Your task to perform on an android device: change keyboard looks Image 0: 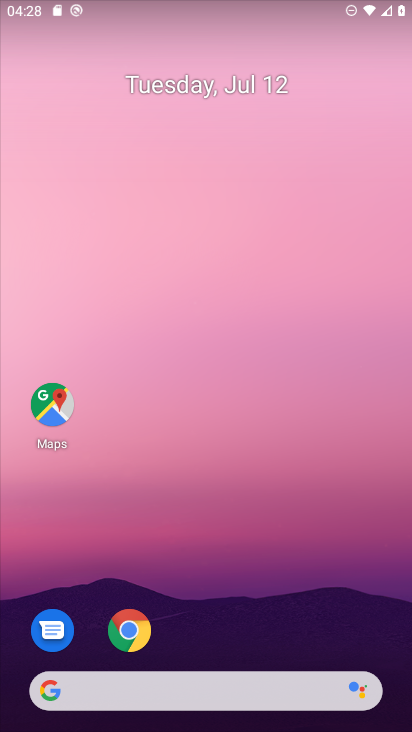
Step 0: drag from (389, 630) to (308, 94)
Your task to perform on an android device: change keyboard looks Image 1: 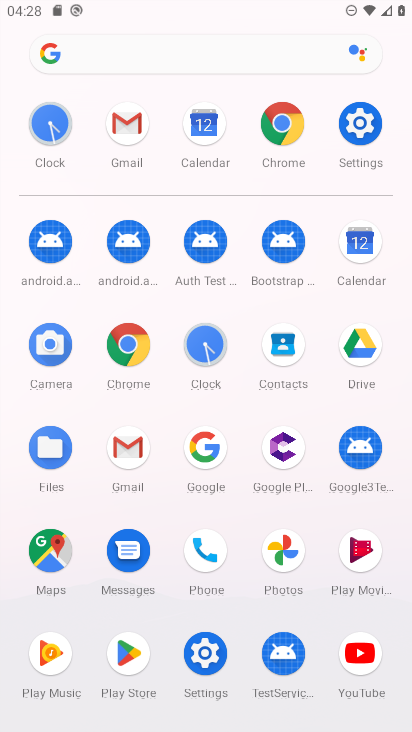
Step 1: click (203, 650)
Your task to perform on an android device: change keyboard looks Image 2: 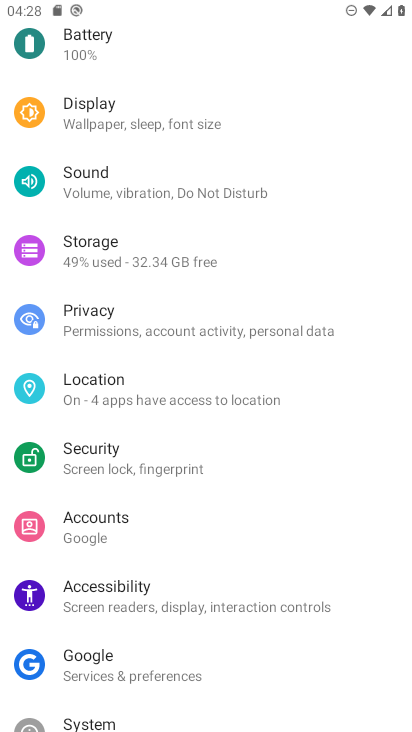
Step 2: drag from (355, 605) to (336, 263)
Your task to perform on an android device: change keyboard looks Image 3: 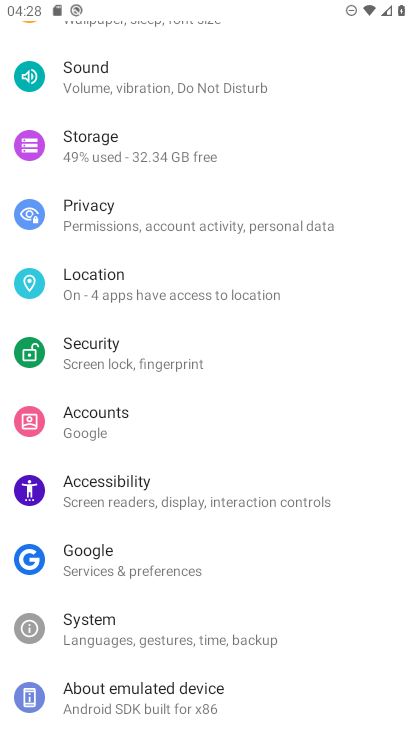
Step 3: click (78, 618)
Your task to perform on an android device: change keyboard looks Image 4: 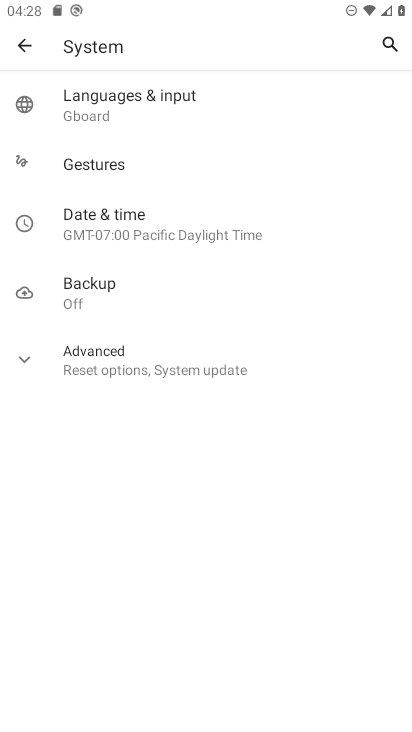
Step 4: click (126, 110)
Your task to perform on an android device: change keyboard looks Image 5: 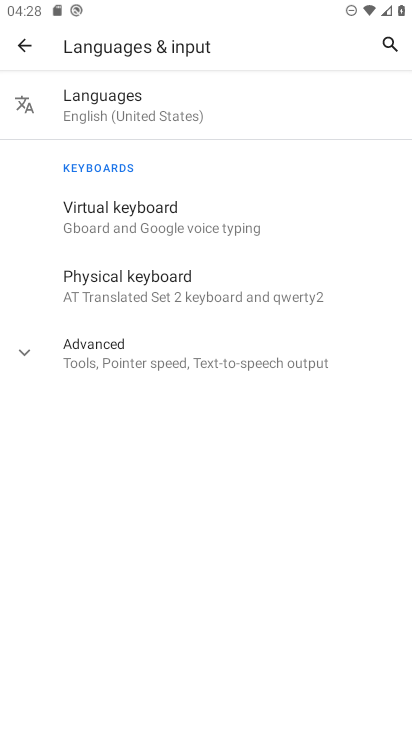
Step 5: click (114, 280)
Your task to perform on an android device: change keyboard looks Image 6: 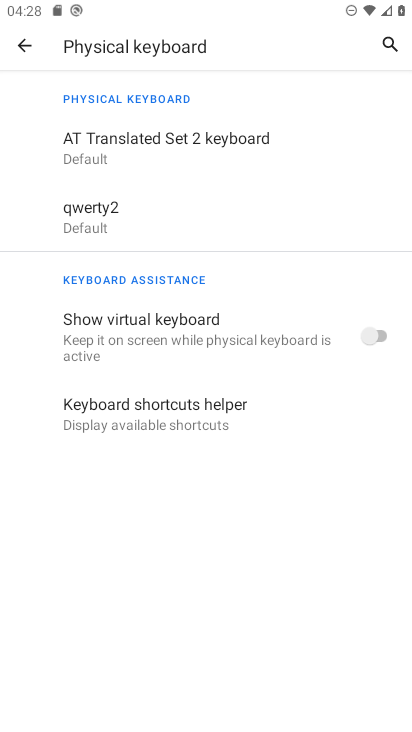
Step 6: click (80, 204)
Your task to perform on an android device: change keyboard looks Image 7: 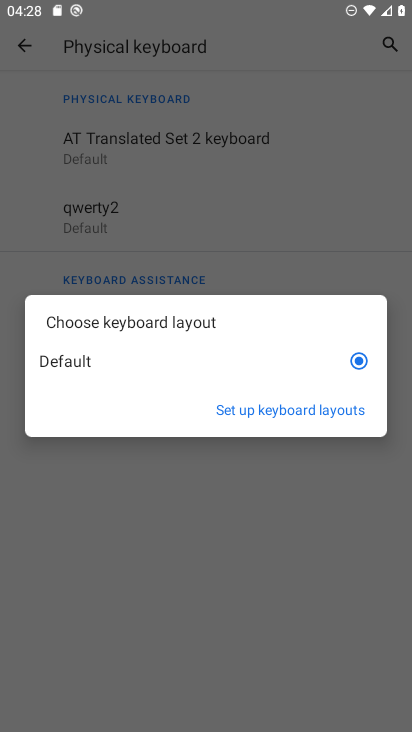
Step 7: click (289, 416)
Your task to perform on an android device: change keyboard looks Image 8: 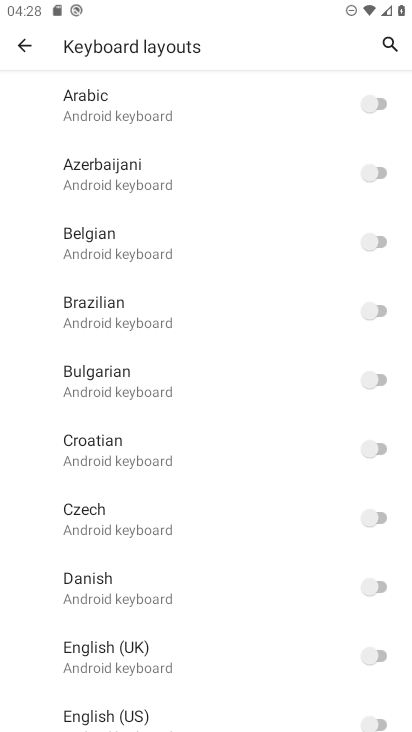
Step 8: click (377, 645)
Your task to perform on an android device: change keyboard looks Image 9: 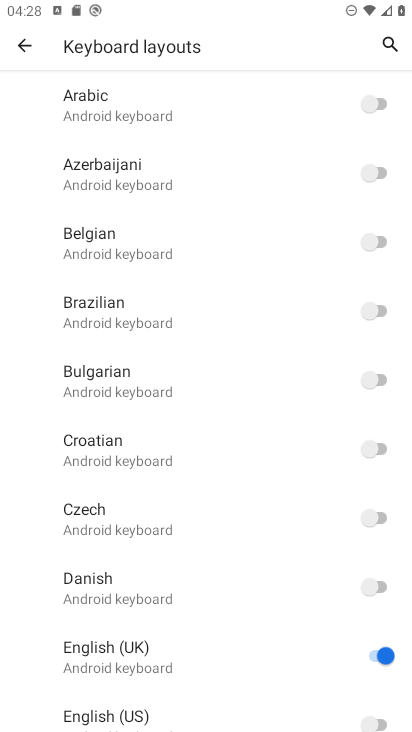
Step 9: task complete